Your task to perform on an android device: turn smart compose on in the gmail app Image 0: 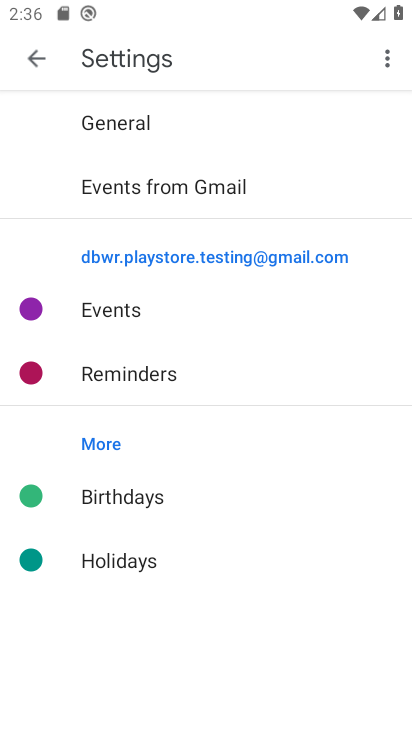
Step 0: press home button
Your task to perform on an android device: turn smart compose on in the gmail app Image 1: 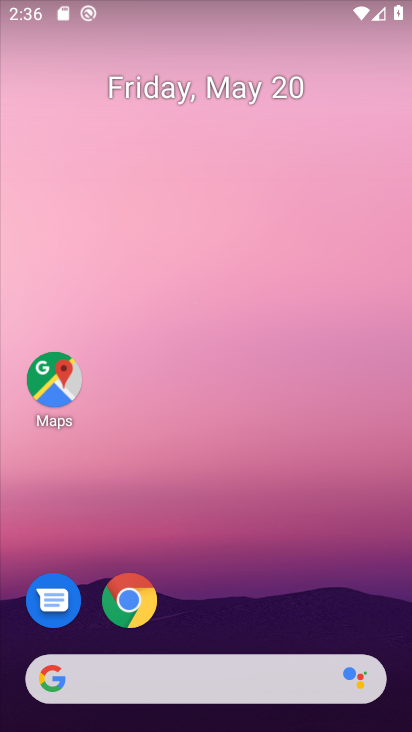
Step 1: drag from (368, 522) to (364, 204)
Your task to perform on an android device: turn smart compose on in the gmail app Image 2: 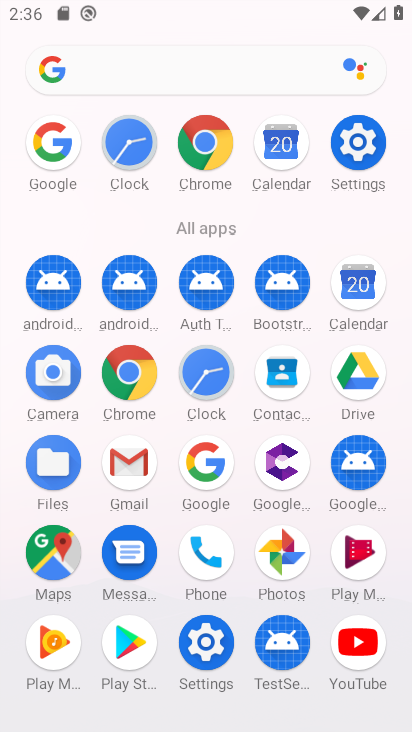
Step 2: click (118, 473)
Your task to perform on an android device: turn smart compose on in the gmail app Image 3: 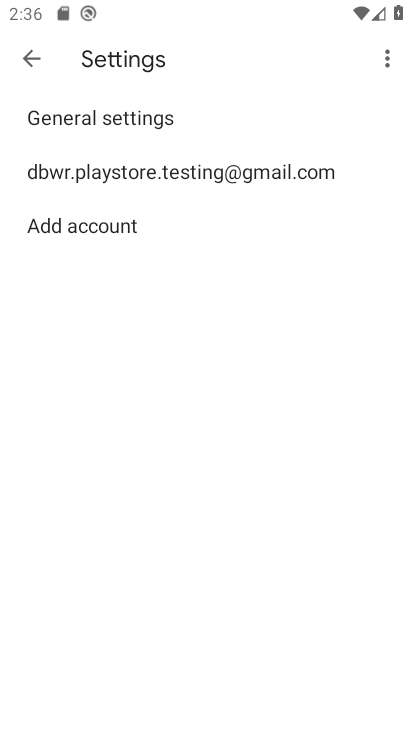
Step 3: click (286, 164)
Your task to perform on an android device: turn smart compose on in the gmail app Image 4: 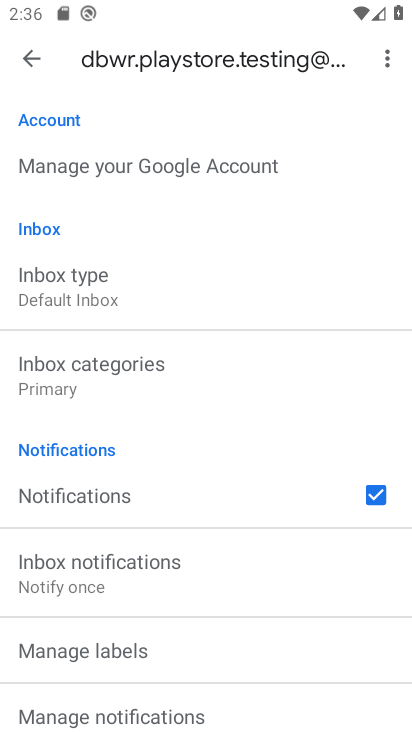
Step 4: drag from (288, 511) to (288, 430)
Your task to perform on an android device: turn smart compose on in the gmail app Image 5: 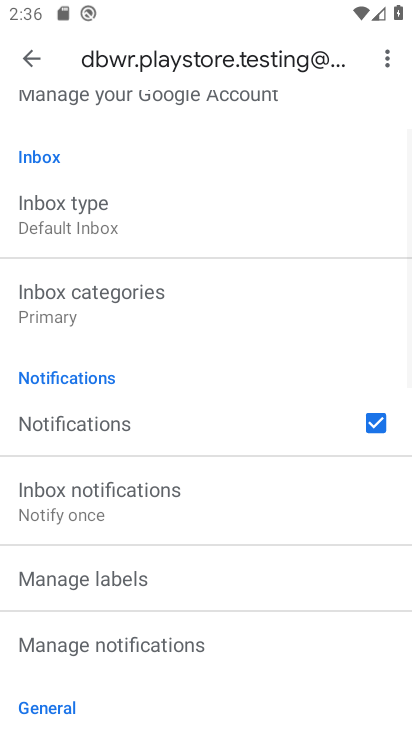
Step 5: drag from (293, 533) to (295, 444)
Your task to perform on an android device: turn smart compose on in the gmail app Image 6: 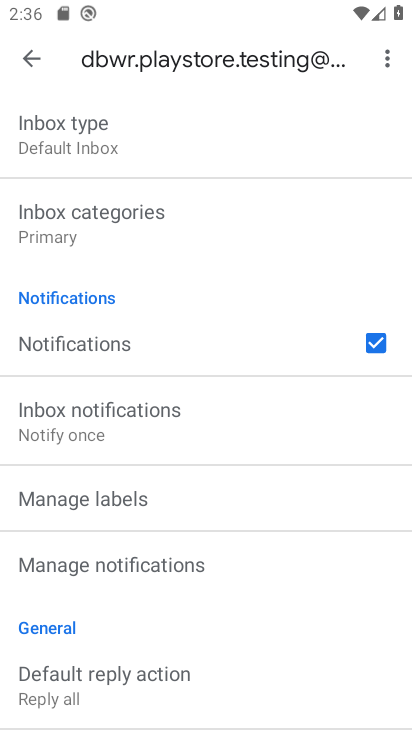
Step 6: drag from (297, 532) to (282, 430)
Your task to perform on an android device: turn smart compose on in the gmail app Image 7: 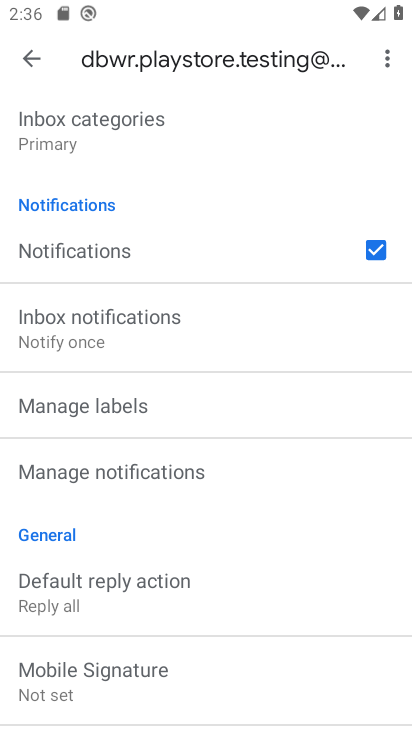
Step 7: drag from (280, 546) to (269, 465)
Your task to perform on an android device: turn smart compose on in the gmail app Image 8: 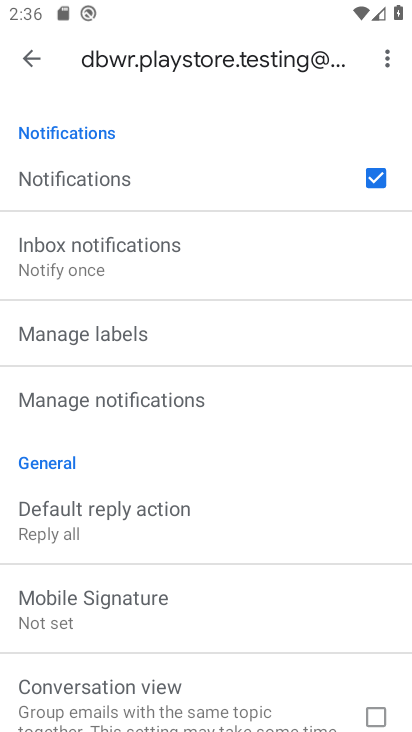
Step 8: drag from (264, 565) to (260, 490)
Your task to perform on an android device: turn smart compose on in the gmail app Image 9: 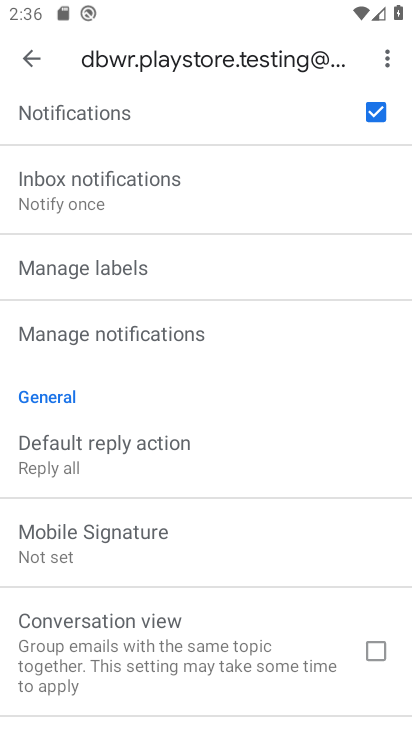
Step 9: drag from (266, 600) to (262, 513)
Your task to perform on an android device: turn smart compose on in the gmail app Image 10: 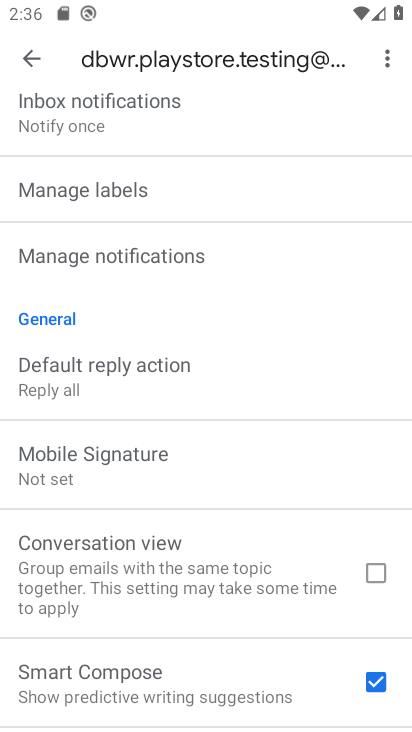
Step 10: drag from (272, 621) to (267, 513)
Your task to perform on an android device: turn smart compose on in the gmail app Image 11: 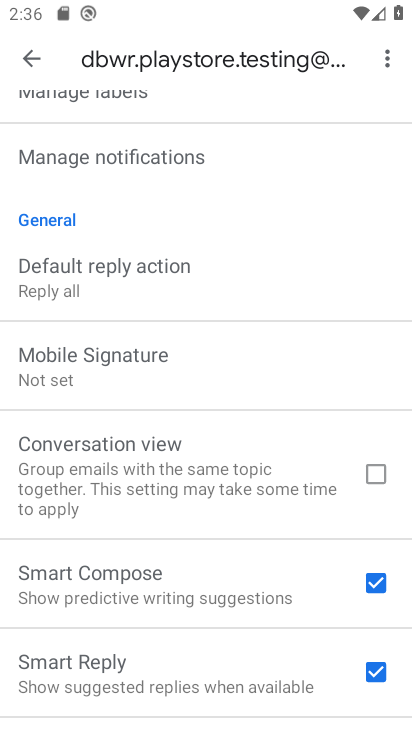
Step 11: drag from (260, 615) to (258, 540)
Your task to perform on an android device: turn smart compose on in the gmail app Image 12: 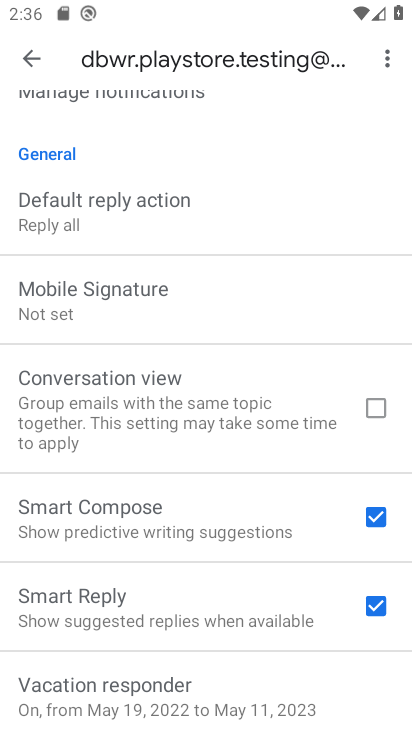
Step 12: drag from (251, 621) to (252, 531)
Your task to perform on an android device: turn smart compose on in the gmail app Image 13: 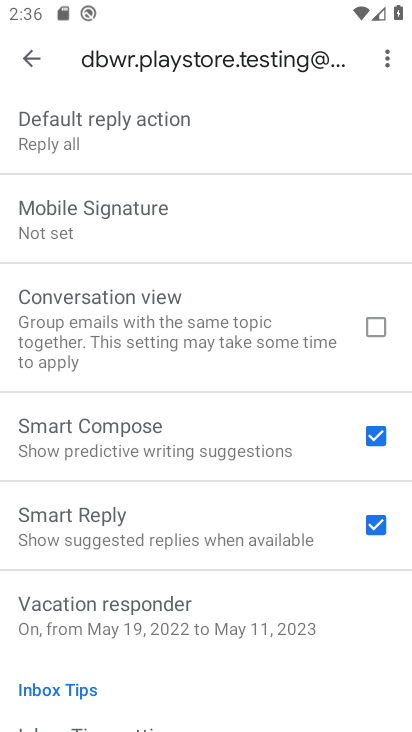
Step 13: click (250, 611)
Your task to perform on an android device: turn smart compose on in the gmail app Image 14: 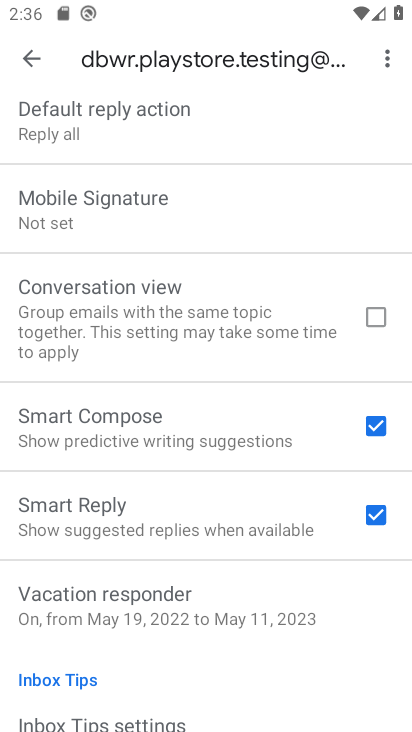
Step 14: task complete